Your task to perform on an android device: turn on bluetooth scan Image 0: 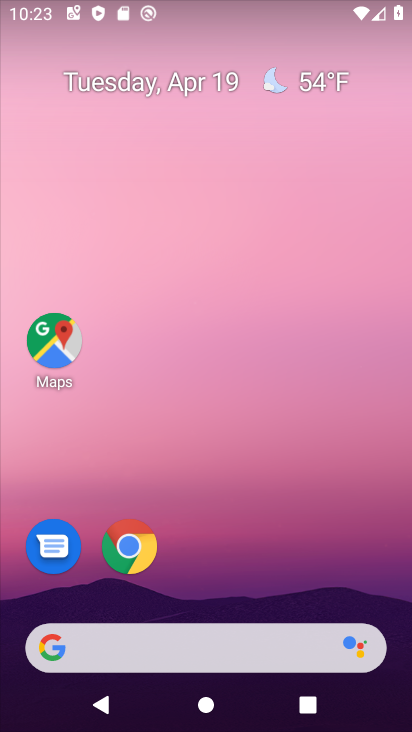
Step 0: drag from (230, 720) to (295, 9)
Your task to perform on an android device: turn on bluetooth scan Image 1: 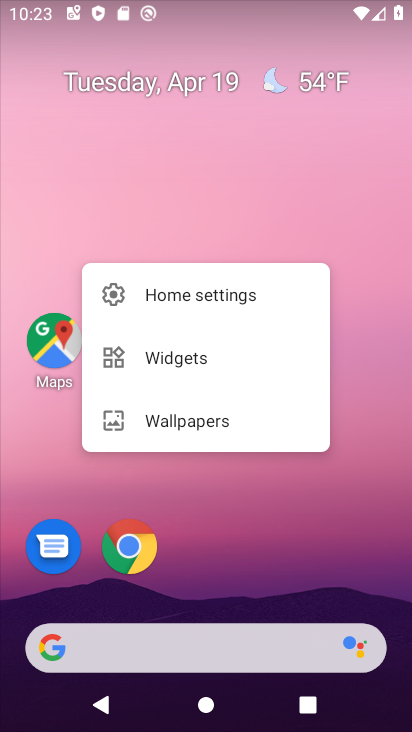
Step 1: drag from (369, 379) to (380, 693)
Your task to perform on an android device: turn on bluetooth scan Image 2: 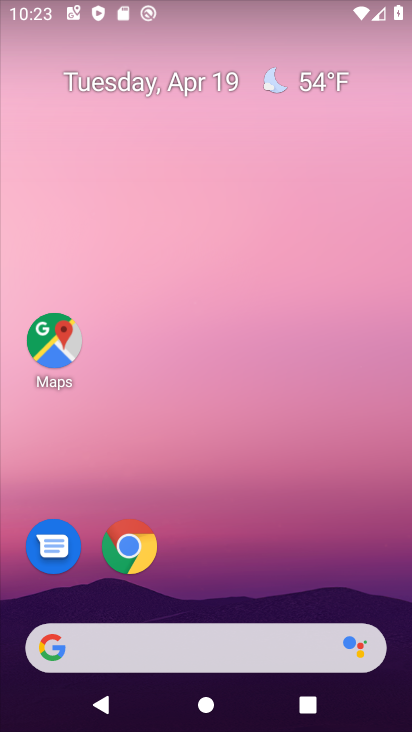
Step 2: drag from (252, 423) to (267, 61)
Your task to perform on an android device: turn on bluetooth scan Image 3: 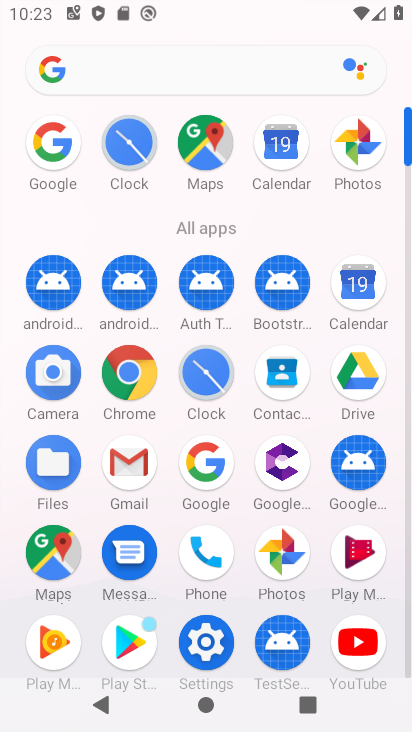
Step 3: click (203, 629)
Your task to perform on an android device: turn on bluetooth scan Image 4: 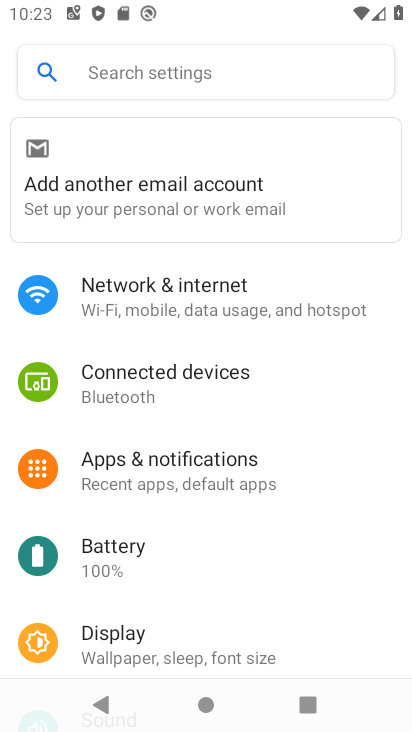
Step 4: drag from (259, 632) to (295, 18)
Your task to perform on an android device: turn on bluetooth scan Image 5: 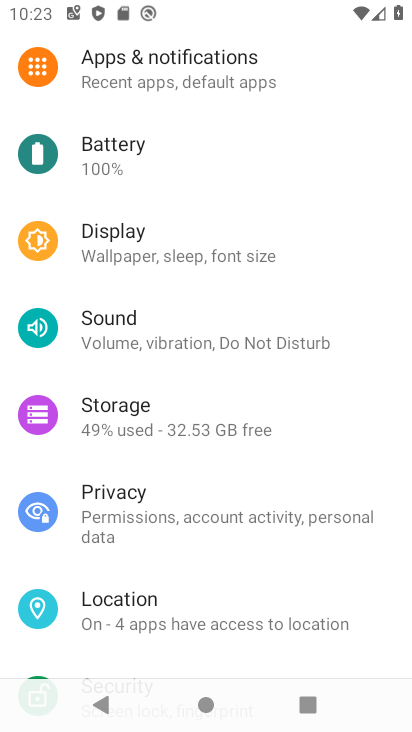
Step 5: click (183, 600)
Your task to perform on an android device: turn on bluetooth scan Image 6: 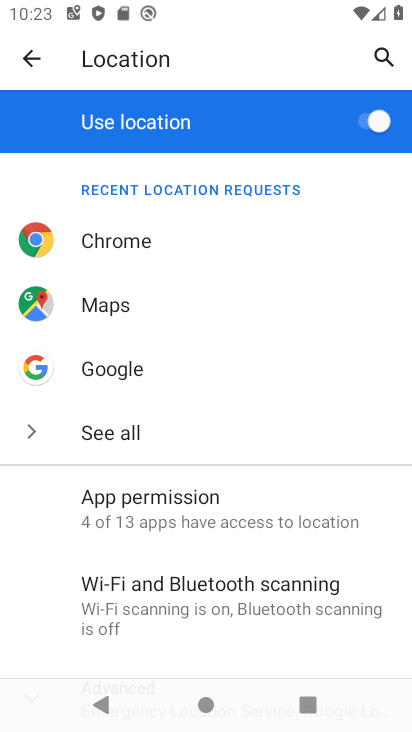
Step 6: click (279, 618)
Your task to perform on an android device: turn on bluetooth scan Image 7: 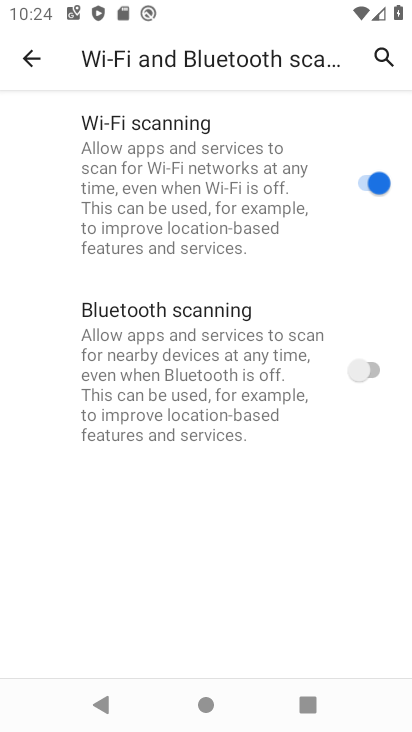
Step 7: click (362, 373)
Your task to perform on an android device: turn on bluetooth scan Image 8: 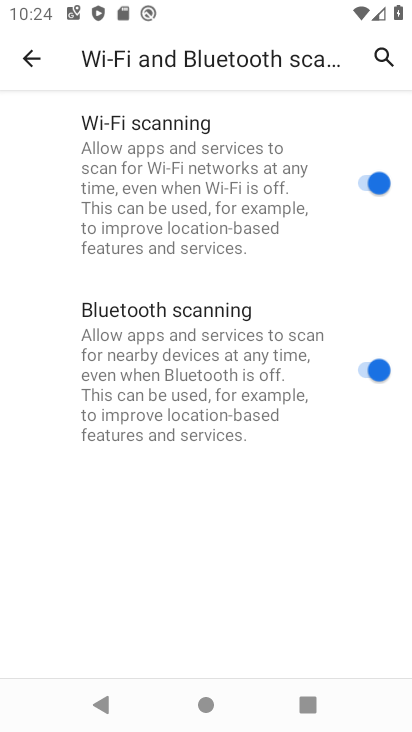
Step 8: task complete